Your task to perform on an android device: toggle show notifications on the lock screen Image 0: 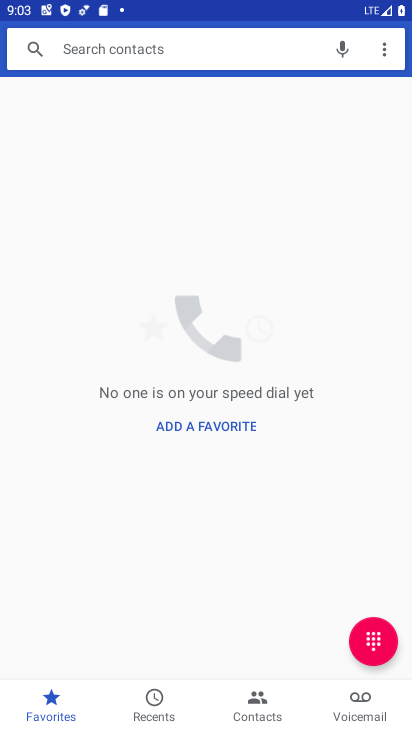
Step 0: press home button
Your task to perform on an android device: toggle show notifications on the lock screen Image 1: 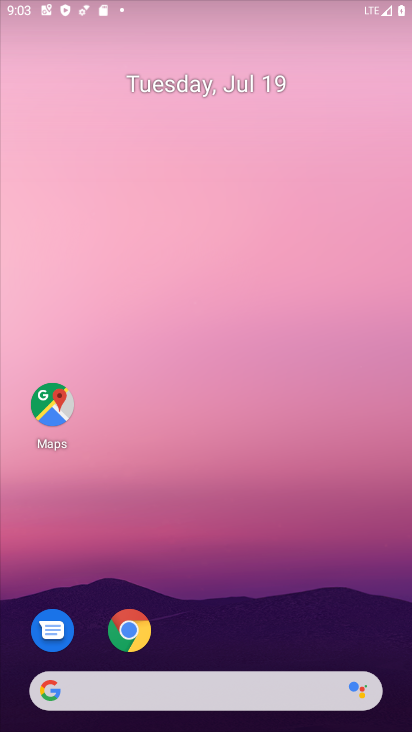
Step 1: drag from (207, 654) to (240, 155)
Your task to perform on an android device: toggle show notifications on the lock screen Image 2: 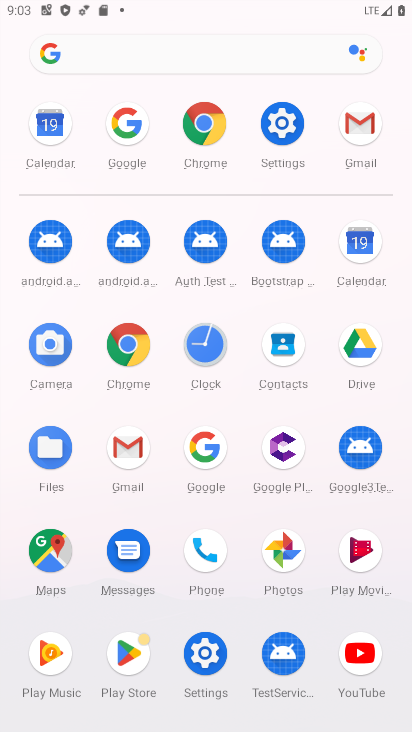
Step 2: click (282, 119)
Your task to perform on an android device: toggle show notifications on the lock screen Image 3: 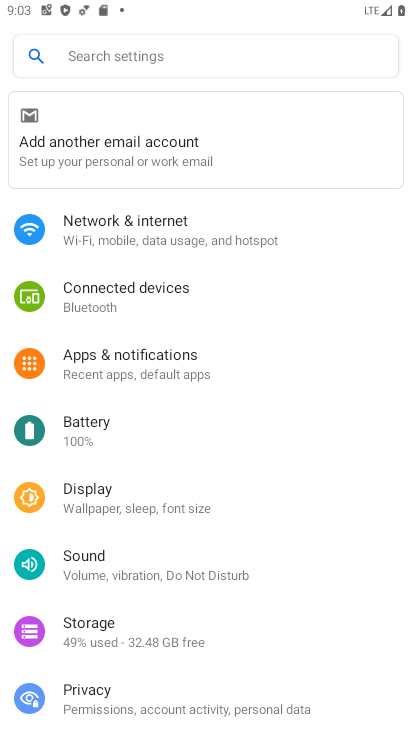
Step 3: click (161, 370)
Your task to perform on an android device: toggle show notifications on the lock screen Image 4: 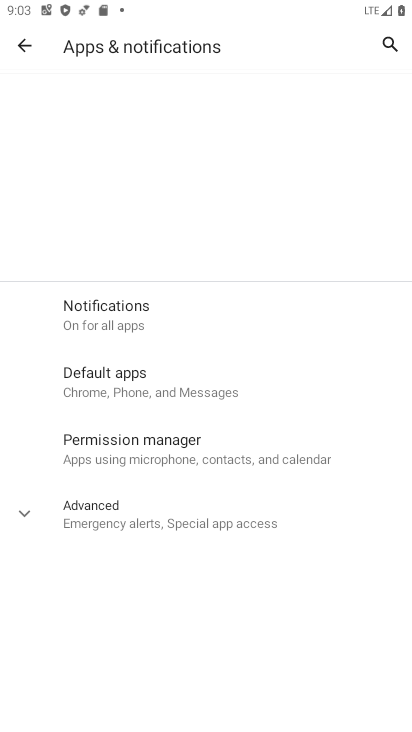
Step 4: click (97, 317)
Your task to perform on an android device: toggle show notifications on the lock screen Image 5: 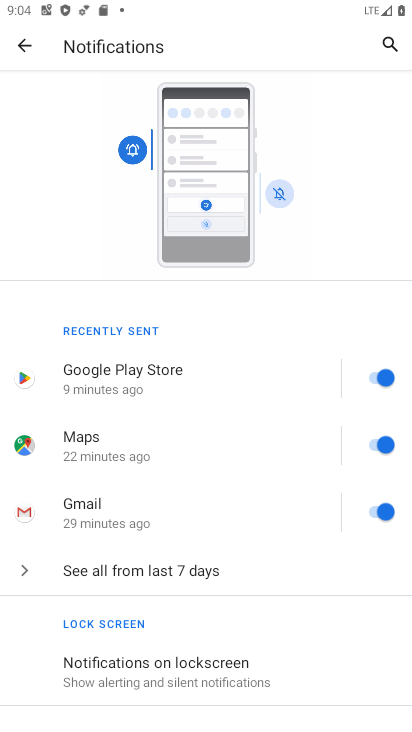
Step 5: click (151, 675)
Your task to perform on an android device: toggle show notifications on the lock screen Image 6: 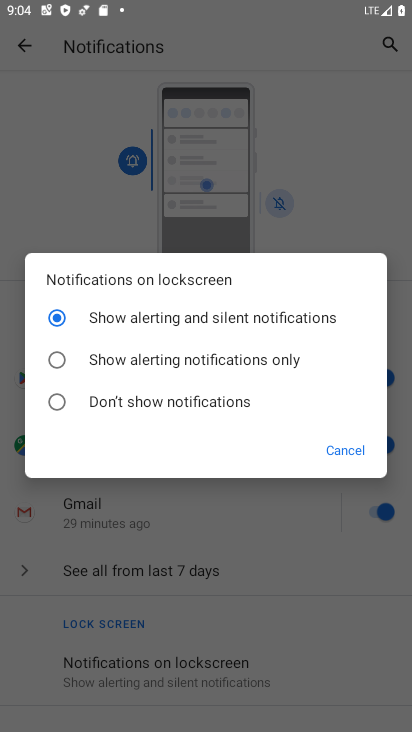
Step 6: click (51, 395)
Your task to perform on an android device: toggle show notifications on the lock screen Image 7: 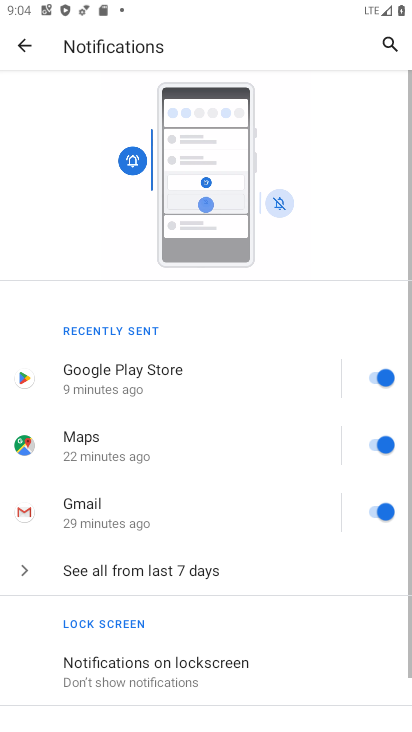
Step 7: task complete